Your task to perform on an android device: Is it going to rain tomorrow? Image 0: 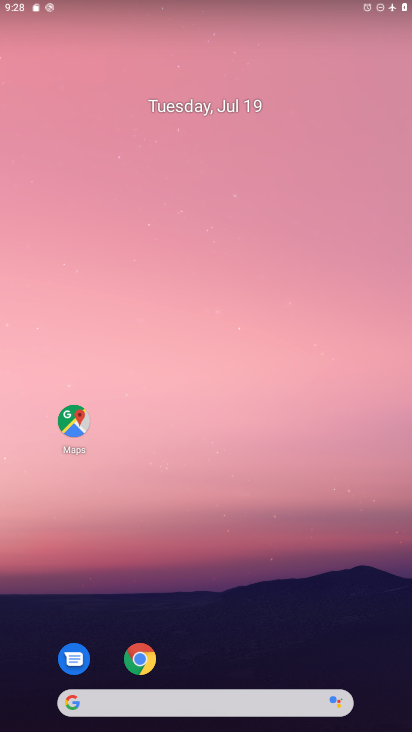
Step 0: drag from (194, 554) to (180, 114)
Your task to perform on an android device: Is it going to rain tomorrow? Image 1: 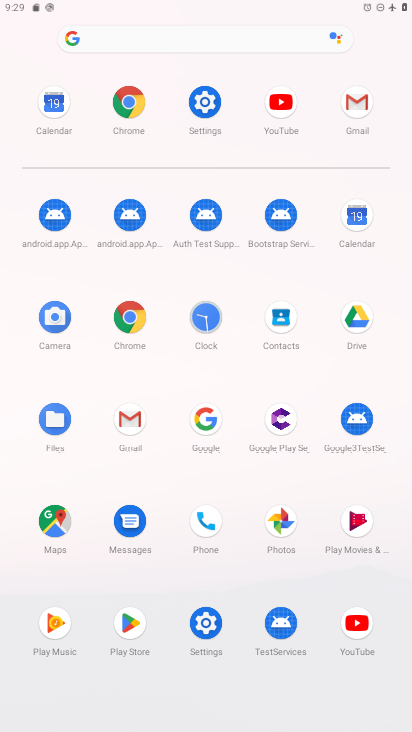
Step 1: click (119, 101)
Your task to perform on an android device: Is it going to rain tomorrow? Image 2: 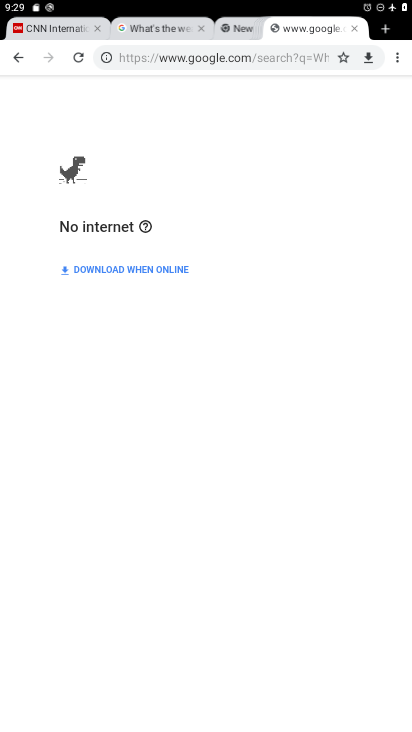
Step 2: click (388, 28)
Your task to perform on an android device: Is it going to rain tomorrow? Image 3: 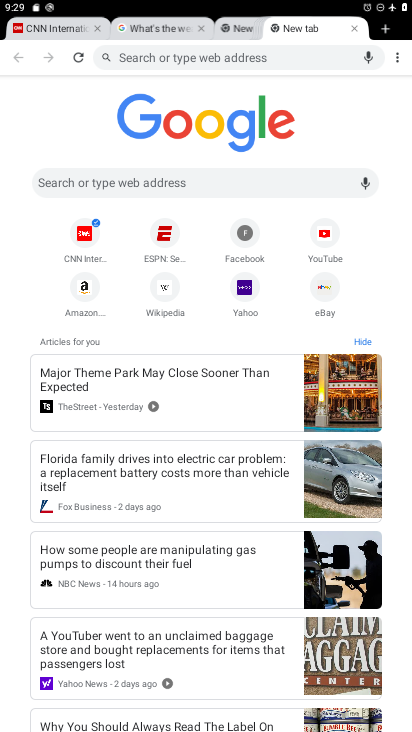
Step 3: click (181, 177)
Your task to perform on an android device: Is it going to rain tomorrow? Image 4: 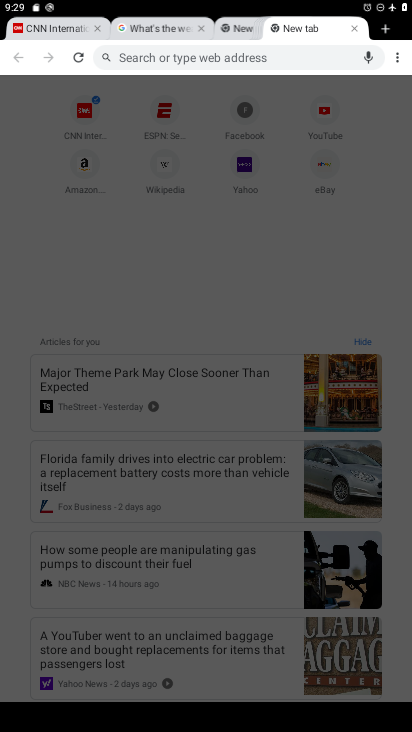
Step 4: type "Is it going to rain tomorrow "
Your task to perform on an android device: Is it going to rain tomorrow? Image 5: 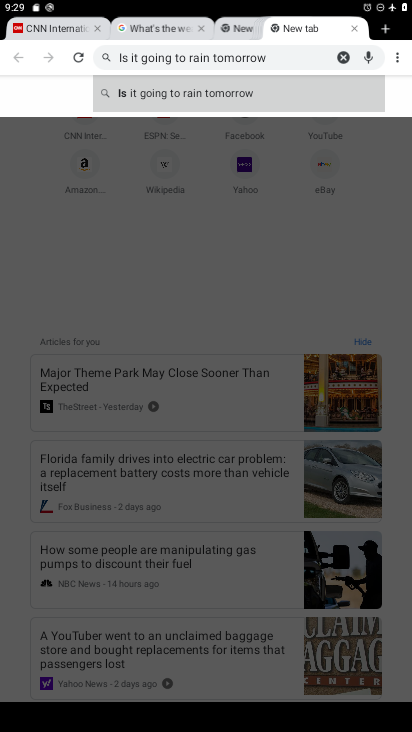
Step 5: click (223, 92)
Your task to perform on an android device: Is it going to rain tomorrow? Image 6: 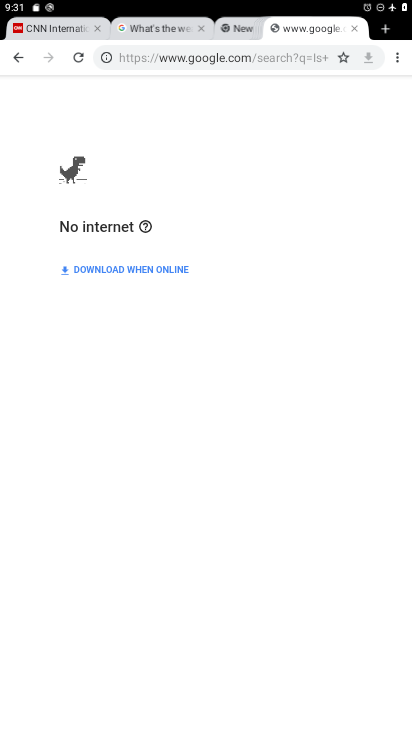
Step 6: task complete